Your task to perform on an android device: snooze an email in the gmail app Image 0: 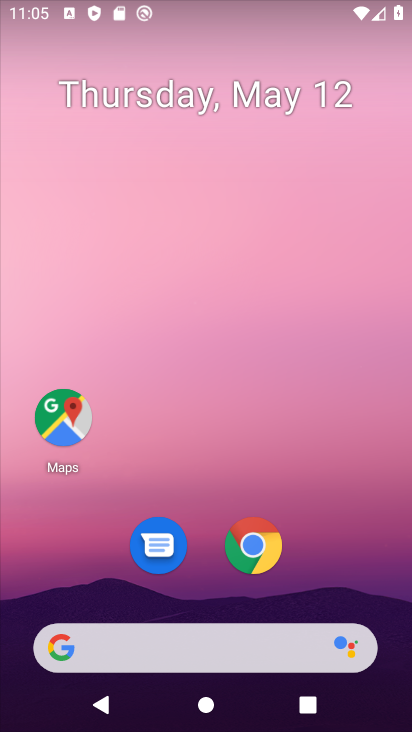
Step 0: drag from (255, 679) to (232, 147)
Your task to perform on an android device: snooze an email in the gmail app Image 1: 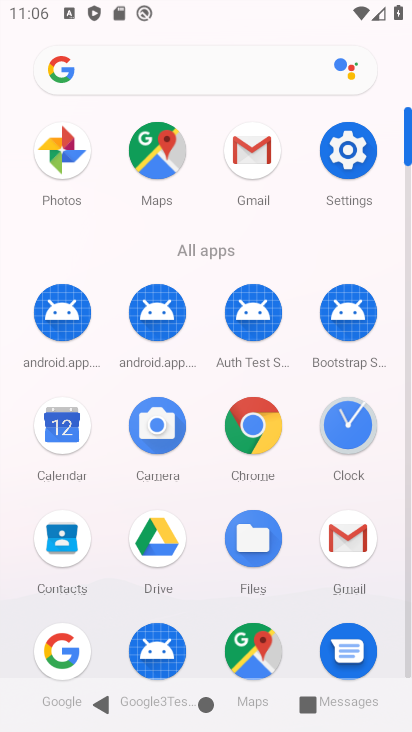
Step 1: click (244, 165)
Your task to perform on an android device: snooze an email in the gmail app Image 2: 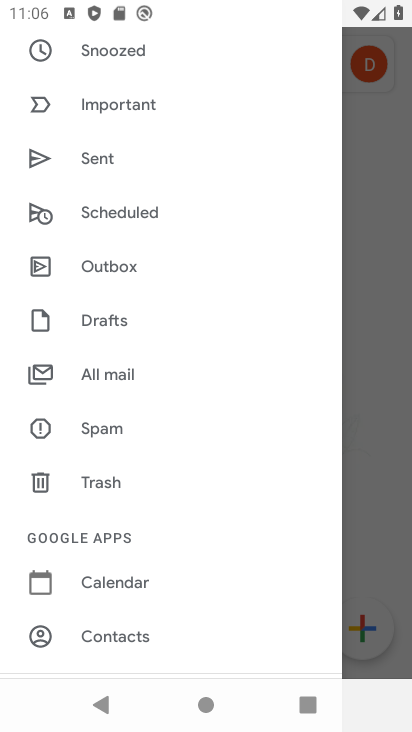
Step 2: click (102, 61)
Your task to perform on an android device: snooze an email in the gmail app Image 3: 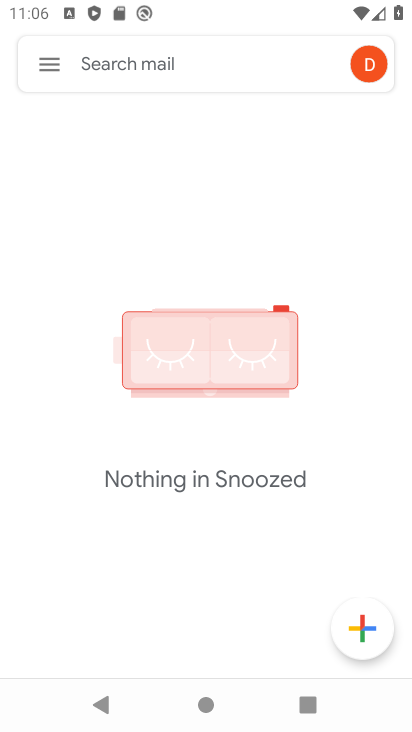
Step 3: task complete